Your task to perform on an android device: Open Chrome and go to the settings page Image 0: 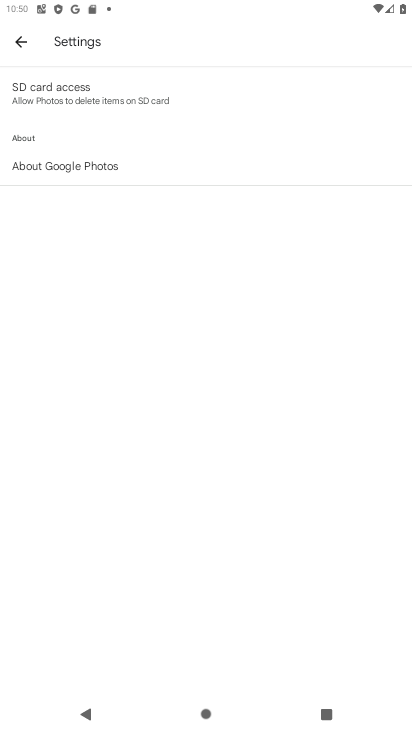
Step 0: press home button
Your task to perform on an android device: Open Chrome and go to the settings page Image 1: 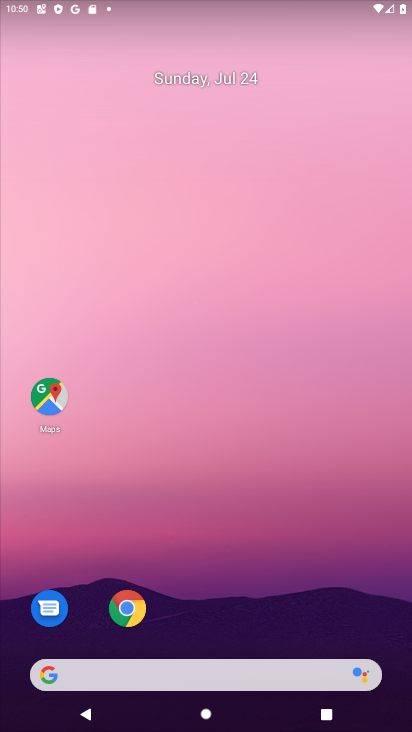
Step 1: click (125, 604)
Your task to perform on an android device: Open Chrome and go to the settings page Image 2: 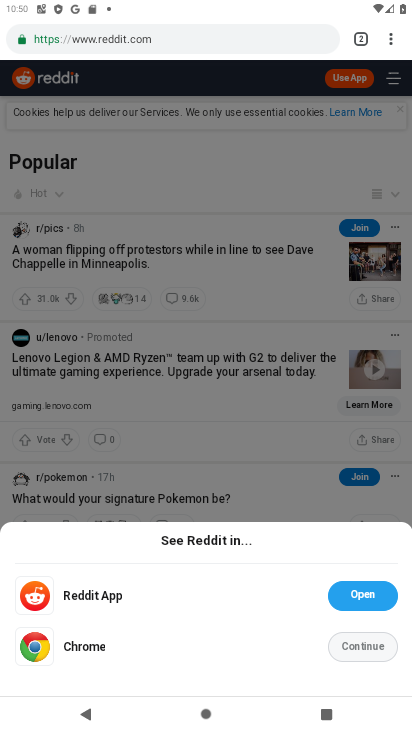
Step 2: click (344, 646)
Your task to perform on an android device: Open Chrome and go to the settings page Image 3: 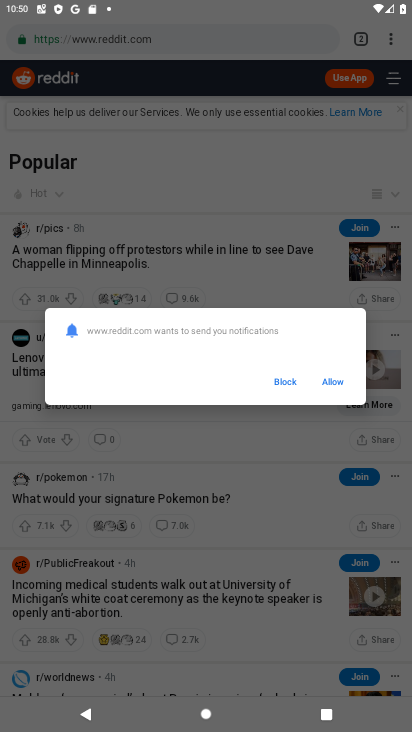
Step 3: click (334, 381)
Your task to perform on an android device: Open Chrome and go to the settings page Image 4: 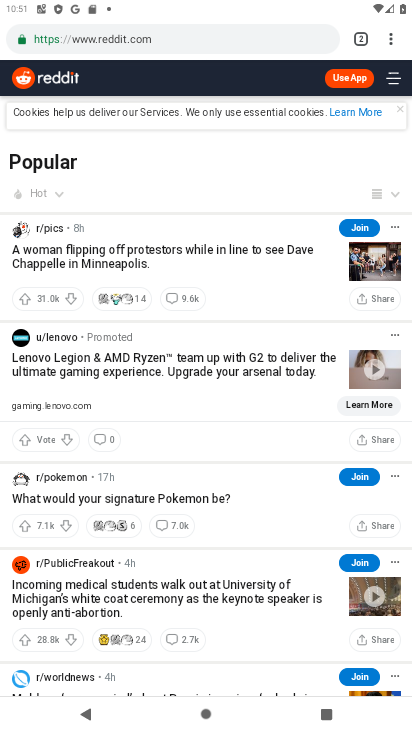
Step 4: click (392, 41)
Your task to perform on an android device: Open Chrome and go to the settings page Image 5: 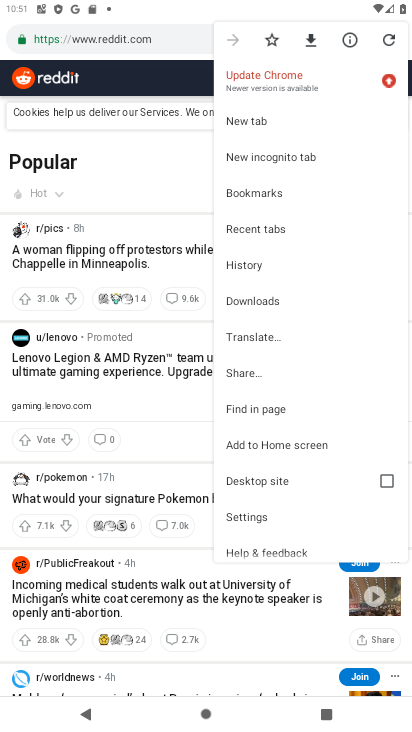
Step 5: click (277, 514)
Your task to perform on an android device: Open Chrome and go to the settings page Image 6: 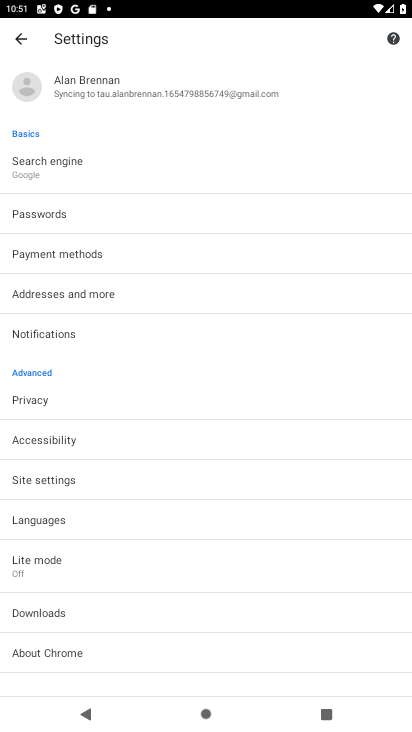
Step 6: task complete